Your task to perform on an android device: read, delete, or share a saved page in the chrome app Image 0: 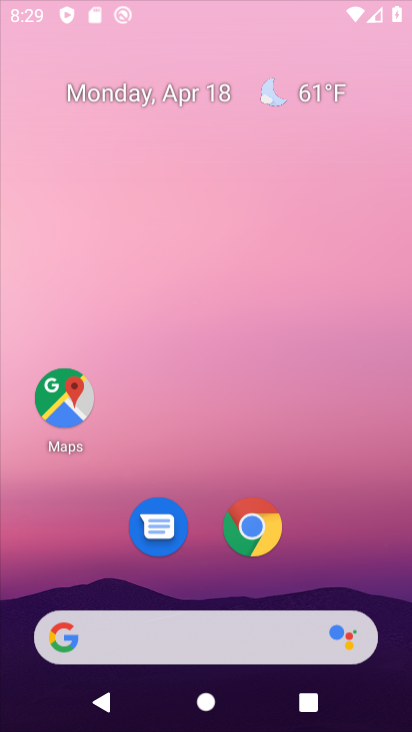
Step 0: click (42, 408)
Your task to perform on an android device: read, delete, or share a saved page in the chrome app Image 1: 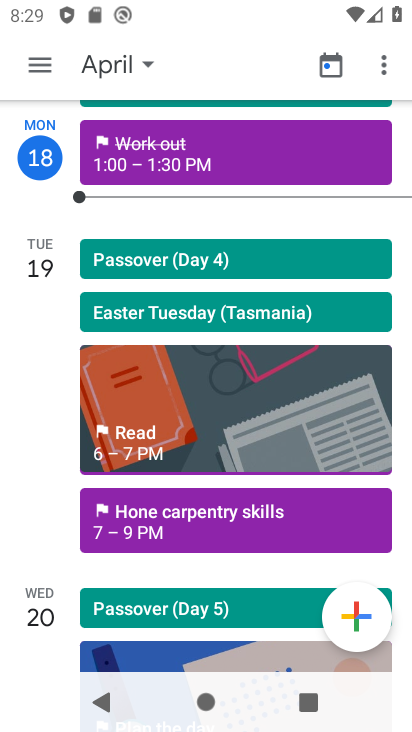
Step 1: press home button
Your task to perform on an android device: read, delete, or share a saved page in the chrome app Image 2: 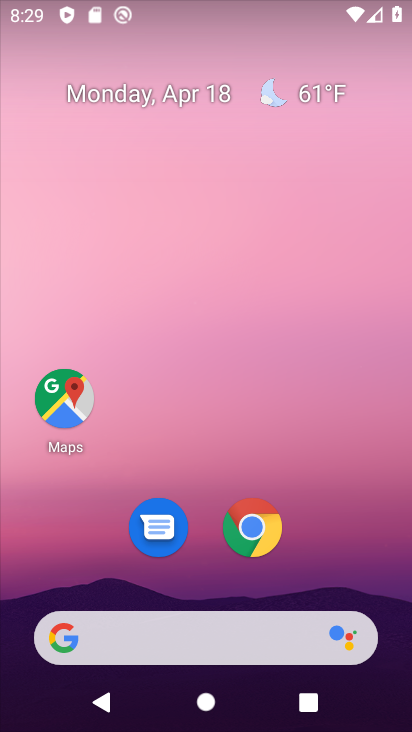
Step 2: click (258, 531)
Your task to perform on an android device: read, delete, or share a saved page in the chrome app Image 3: 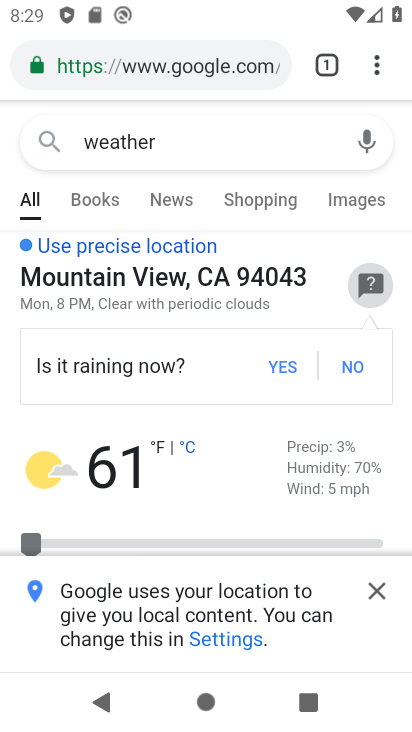
Step 3: click (376, 63)
Your task to perform on an android device: read, delete, or share a saved page in the chrome app Image 4: 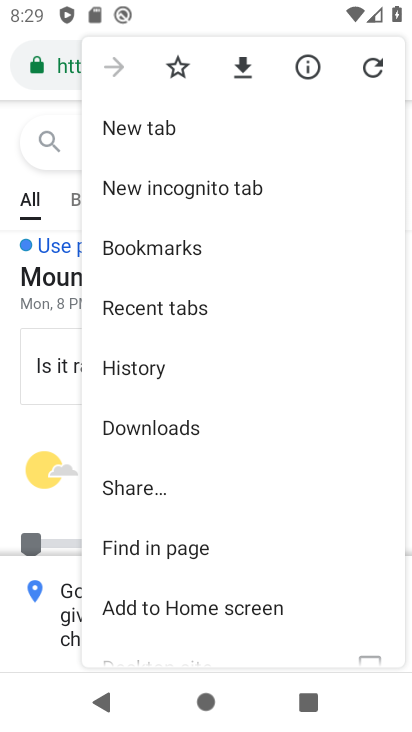
Step 4: click (175, 418)
Your task to perform on an android device: read, delete, or share a saved page in the chrome app Image 5: 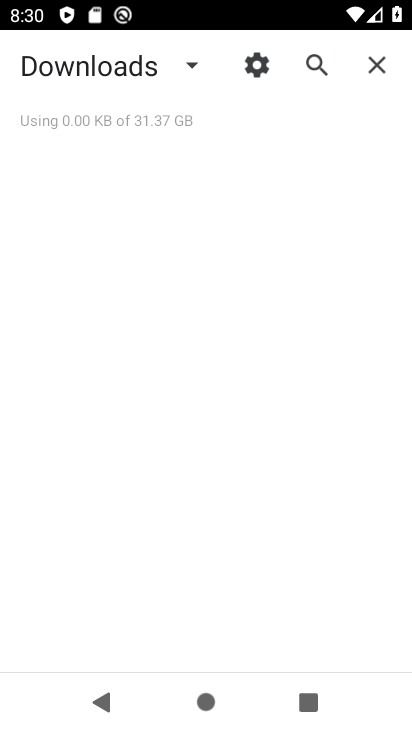
Step 5: task complete